Your task to perform on an android device: read, delete, or share a saved page in the chrome app Image 0: 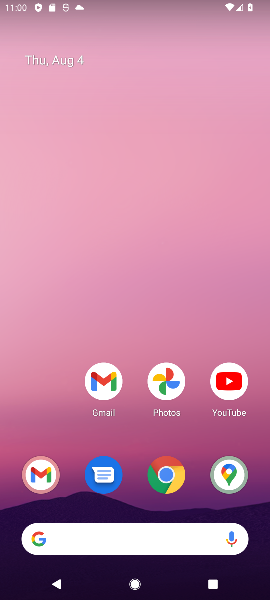
Step 0: press home button
Your task to perform on an android device: read, delete, or share a saved page in the chrome app Image 1: 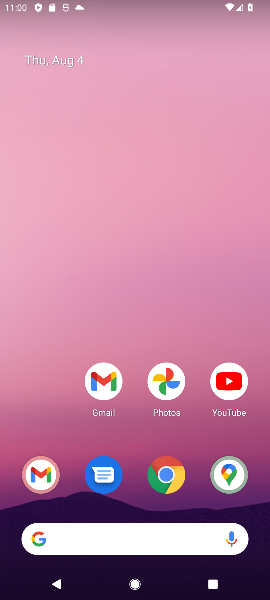
Step 1: click (173, 464)
Your task to perform on an android device: read, delete, or share a saved page in the chrome app Image 2: 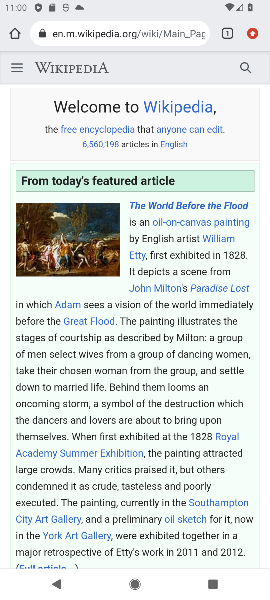
Step 2: click (254, 31)
Your task to perform on an android device: read, delete, or share a saved page in the chrome app Image 3: 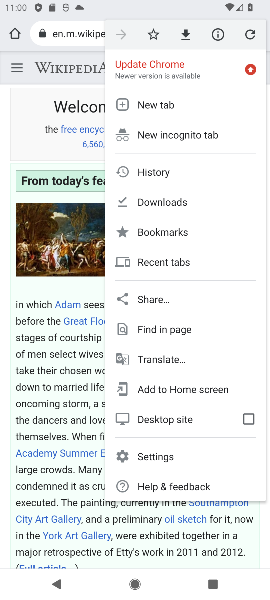
Step 3: click (184, 195)
Your task to perform on an android device: read, delete, or share a saved page in the chrome app Image 4: 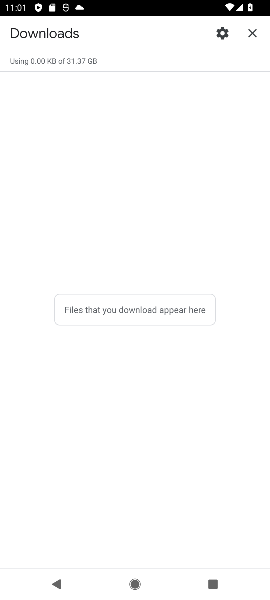
Step 4: task complete